Your task to perform on an android device: find which apps use the phone's location Image 0: 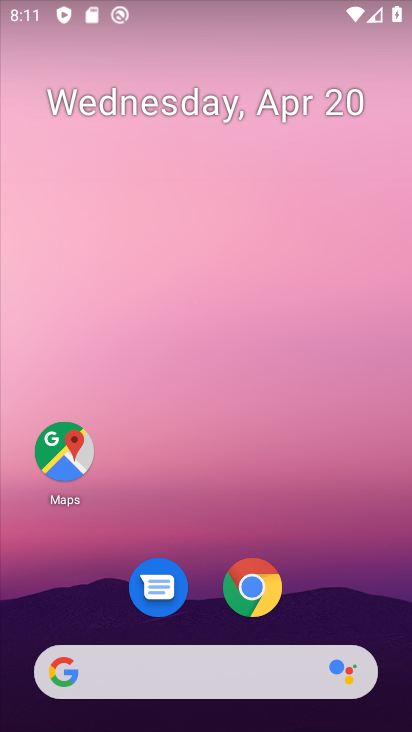
Step 0: drag from (351, 582) to (356, 103)
Your task to perform on an android device: find which apps use the phone's location Image 1: 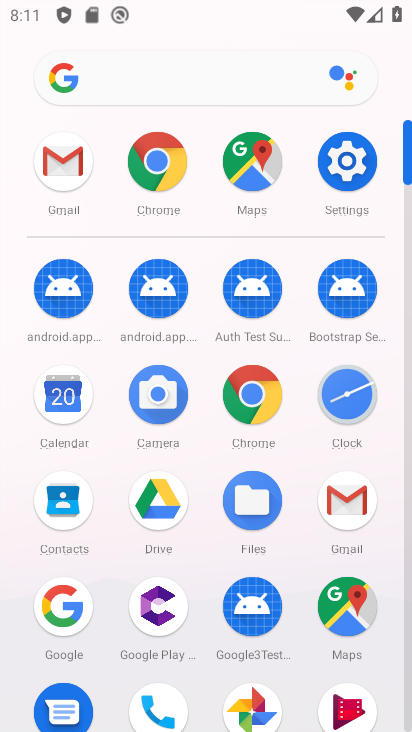
Step 1: click (342, 159)
Your task to perform on an android device: find which apps use the phone's location Image 2: 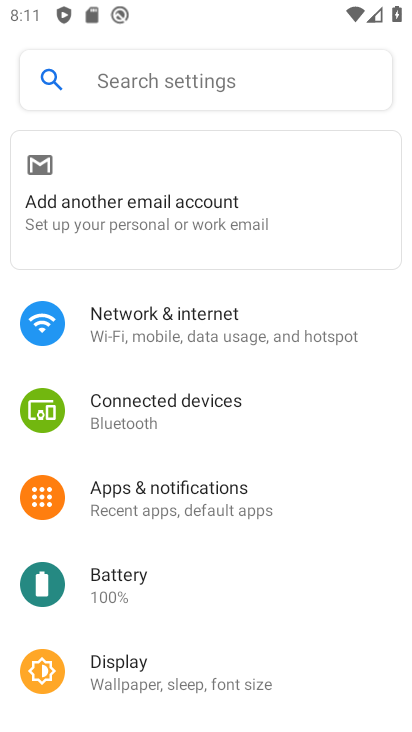
Step 2: drag from (345, 549) to (356, 347)
Your task to perform on an android device: find which apps use the phone's location Image 3: 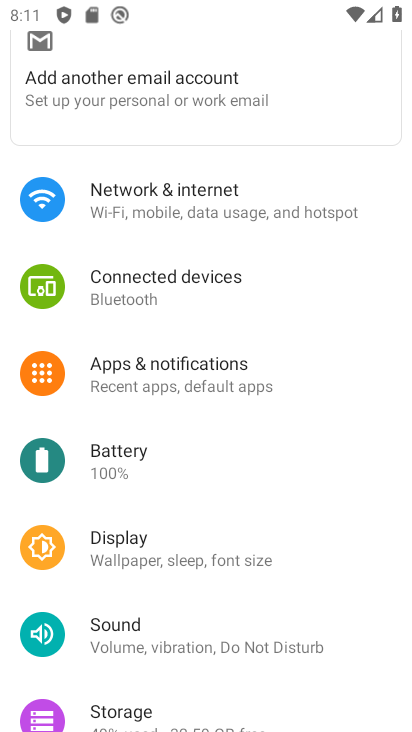
Step 3: drag from (354, 624) to (358, 436)
Your task to perform on an android device: find which apps use the phone's location Image 4: 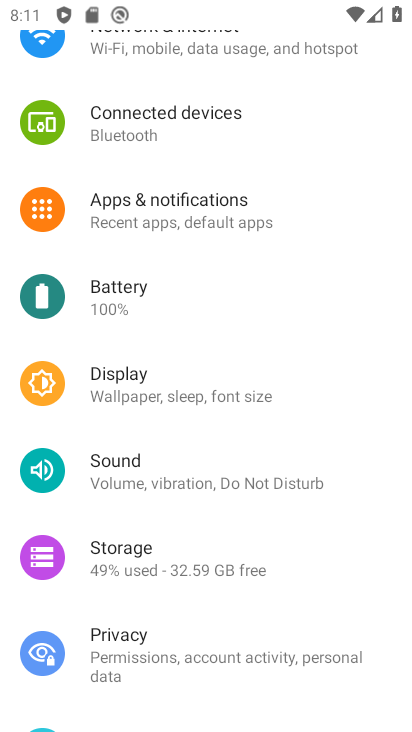
Step 4: drag from (368, 569) to (364, 395)
Your task to perform on an android device: find which apps use the phone's location Image 5: 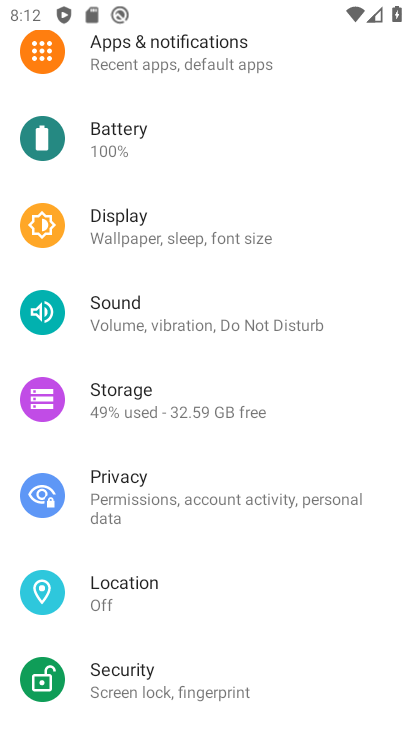
Step 5: drag from (346, 610) to (348, 409)
Your task to perform on an android device: find which apps use the phone's location Image 6: 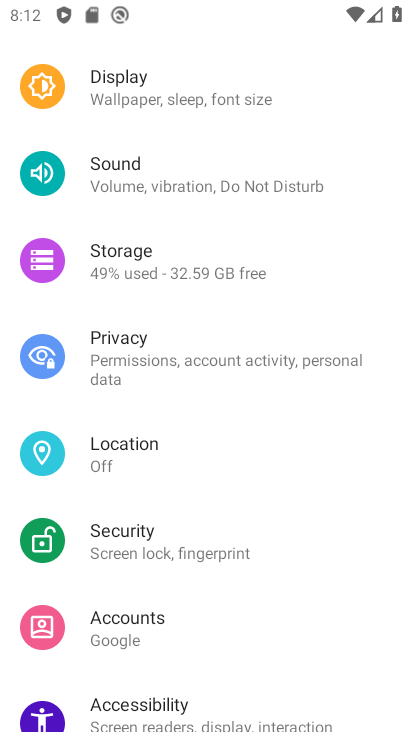
Step 6: drag from (345, 585) to (344, 410)
Your task to perform on an android device: find which apps use the phone's location Image 7: 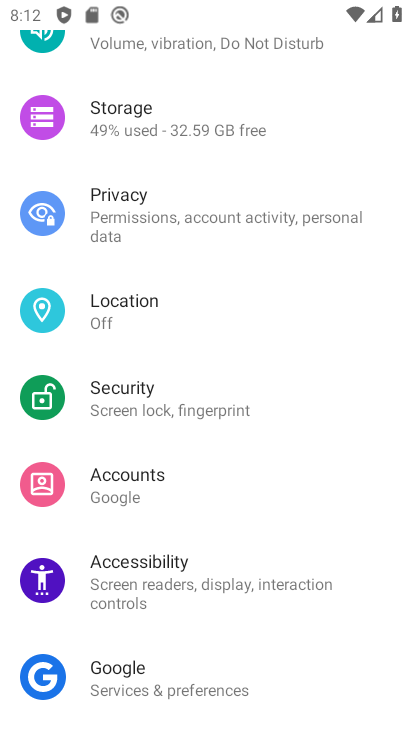
Step 7: drag from (355, 629) to (368, 444)
Your task to perform on an android device: find which apps use the phone's location Image 8: 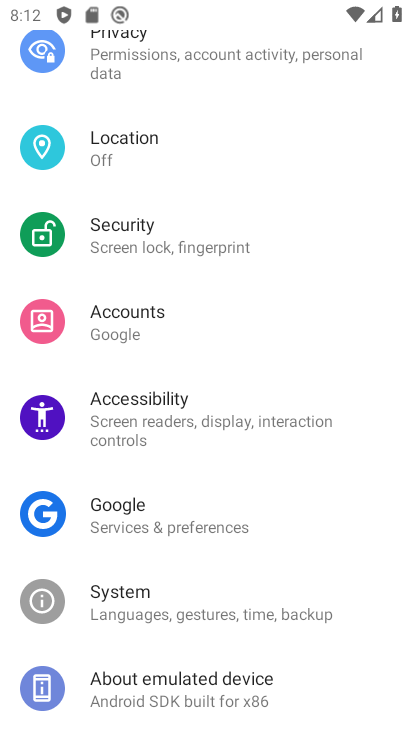
Step 8: drag from (358, 645) to (378, 384)
Your task to perform on an android device: find which apps use the phone's location Image 9: 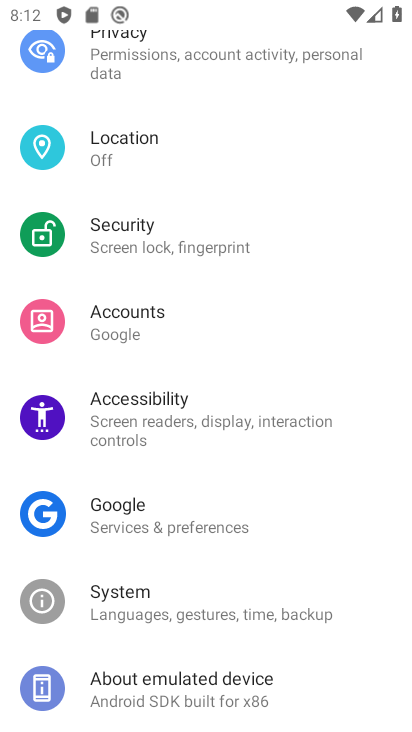
Step 9: drag from (374, 353) to (362, 545)
Your task to perform on an android device: find which apps use the phone's location Image 10: 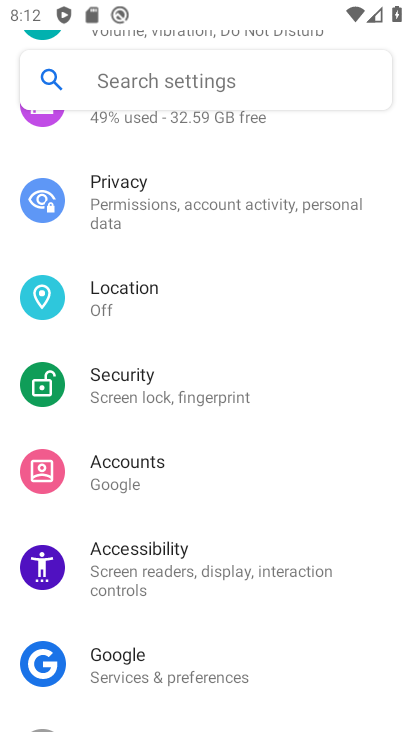
Step 10: drag from (369, 343) to (358, 517)
Your task to perform on an android device: find which apps use the phone's location Image 11: 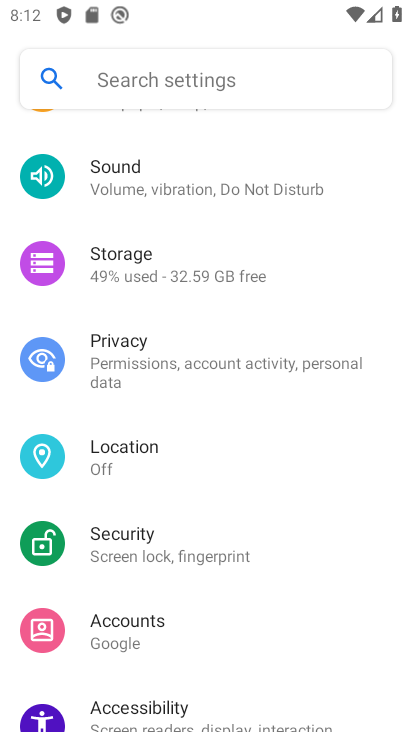
Step 11: click (130, 467)
Your task to perform on an android device: find which apps use the phone's location Image 12: 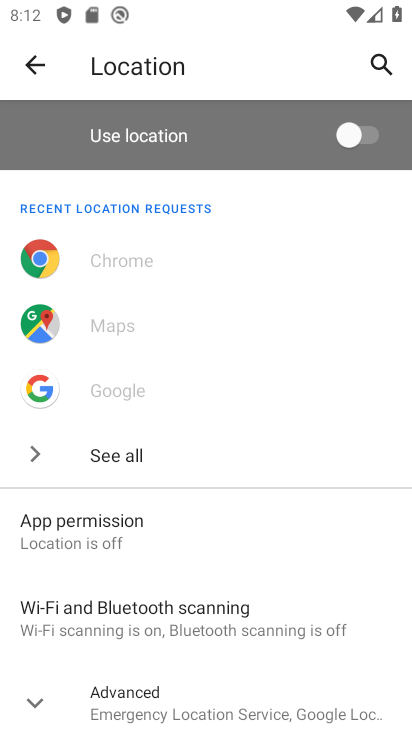
Step 12: drag from (326, 527) to (331, 392)
Your task to perform on an android device: find which apps use the phone's location Image 13: 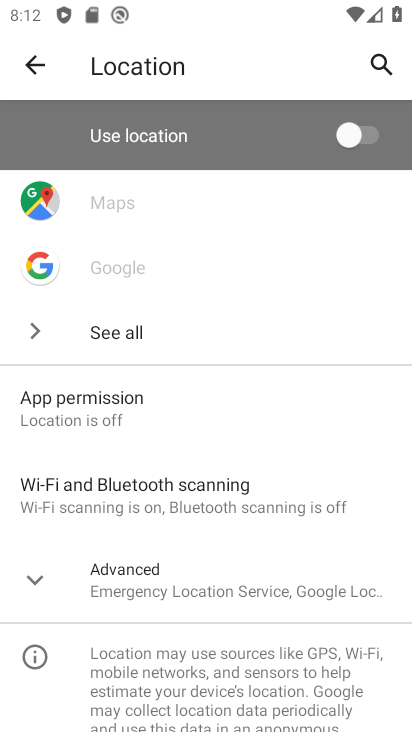
Step 13: click (101, 412)
Your task to perform on an android device: find which apps use the phone's location Image 14: 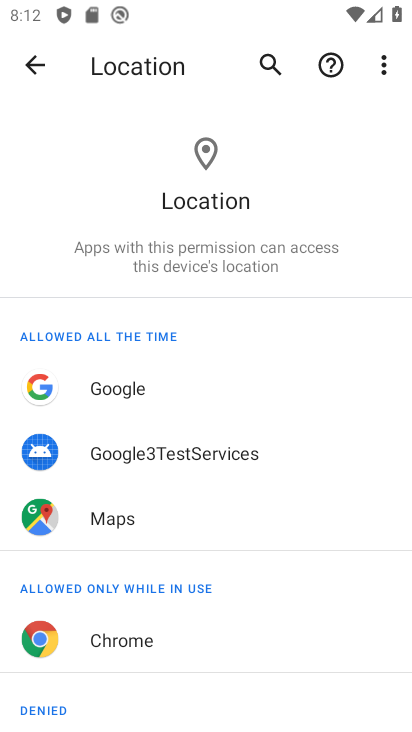
Step 14: drag from (322, 575) to (336, 403)
Your task to perform on an android device: find which apps use the phone's location Image 15: 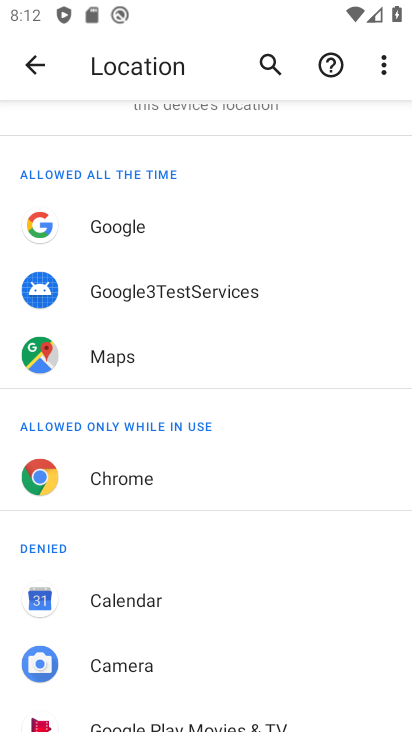
Step 15: drag from (311, 593) to (313, 413)
Your task to perform on an android device: find which apps use the phone's location Image 16: 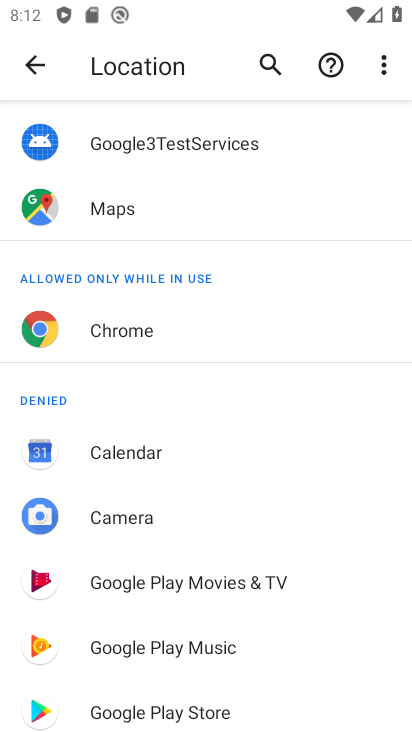
Step 16: drag from (330, 625) to (335, 443)
Your task to perform on an android device: find which apps use the phone's location Image 17: 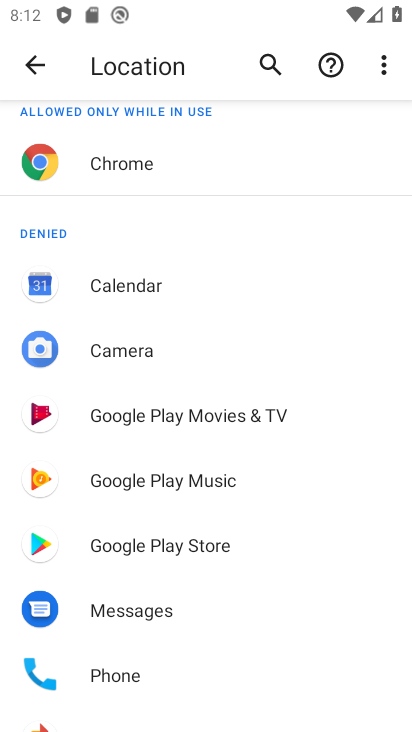
Step 17: drag from (322, 639) to (333, 454)
Your task to perform on an android device: find which apps use the phone's location Image 18: 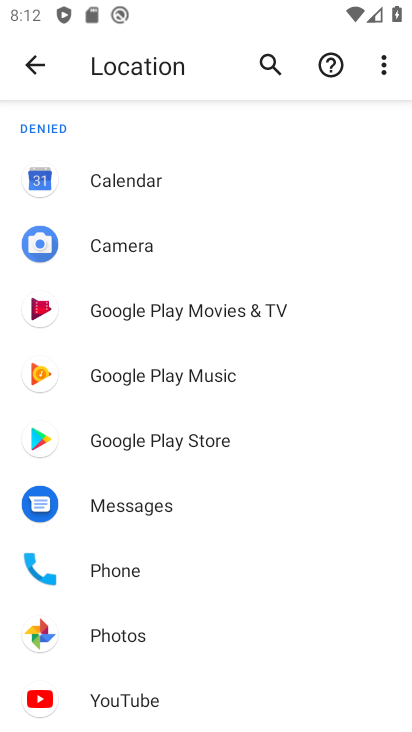
Step 18: click (145, 636)
Your task to perform on an android device: find which apps use the phone's location Image 19: 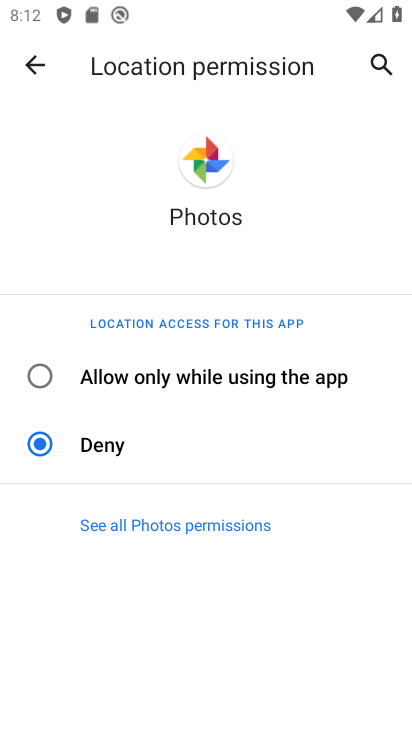
Step 19: click (42, 372)
Your task to perform on an android device: find which apps use the phone's location Image 20: 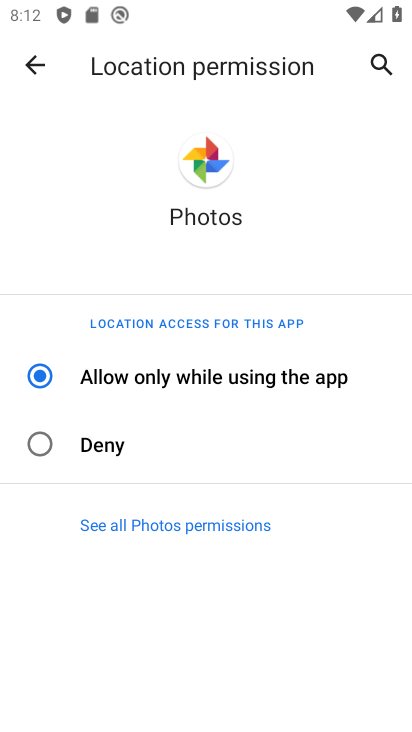
Step 20: task complete